Your task to perform on an android device: open chrome and create a bookmark for the current page Image 0: 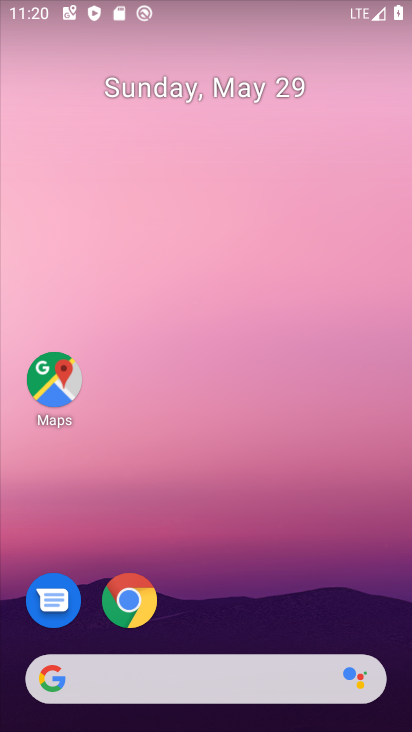
Step 0: click (144, 596)
Your task to perform on an android device: open chrome and create a bookmark for the current page Image 1: 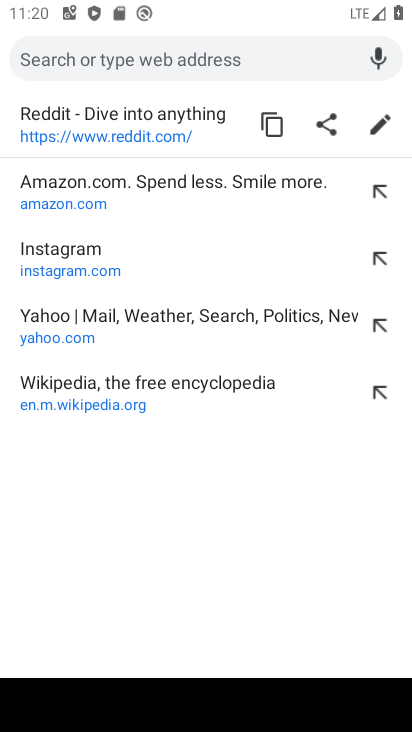
Step 1: press back button
Your task to perform on an android device: open chrome and create a bookmark for the current page Image 2: 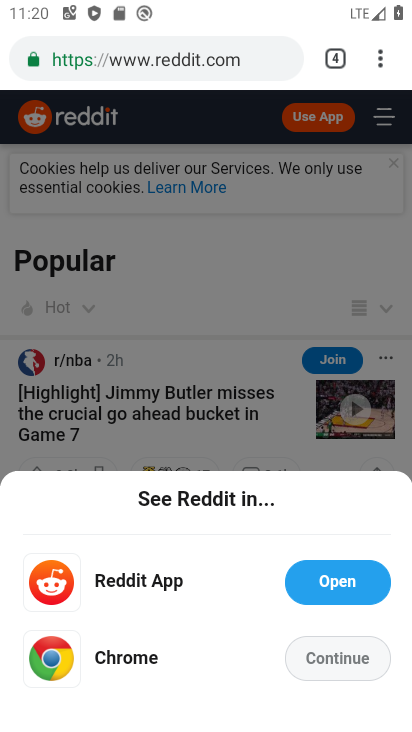
Step 2: drag from (369, 71) to (204, 67)
Your task to perform on an android device: open chrome and create a bookmark for the current page Image 3: 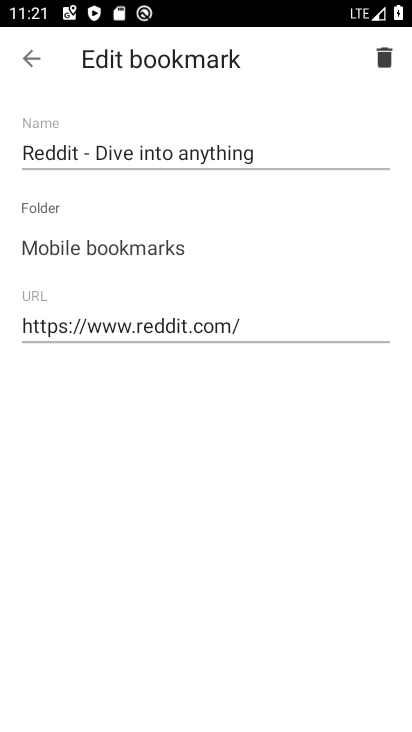
Step 3: click (18, 59)
Your task to perform on an android device: open chrome and create a bookmark for the current page Image 4: 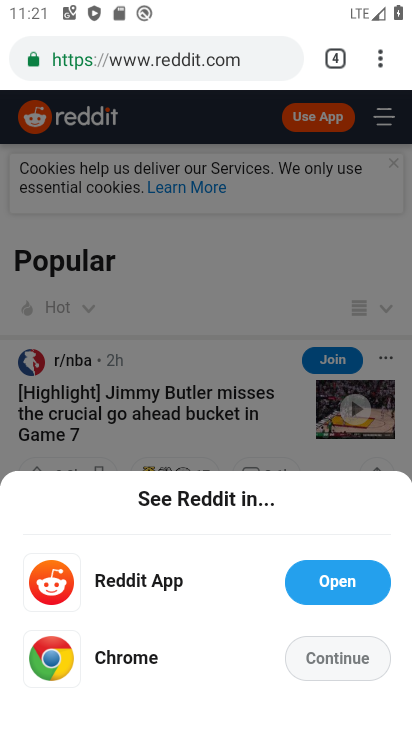
Step 4: task complete